Your task to perform on an android device: Show me productivity apps on the Play Store Image 0: 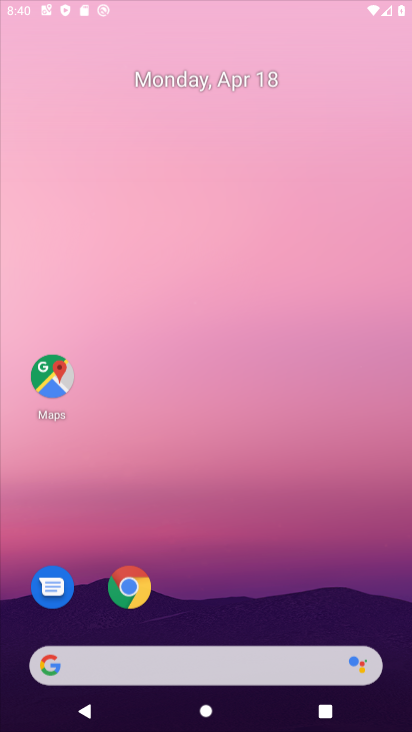
Step 0: drag from (301, 290) to (286, 117)
Your task to perform on an android device: Show me productivity apps on the Play Store Image 1: 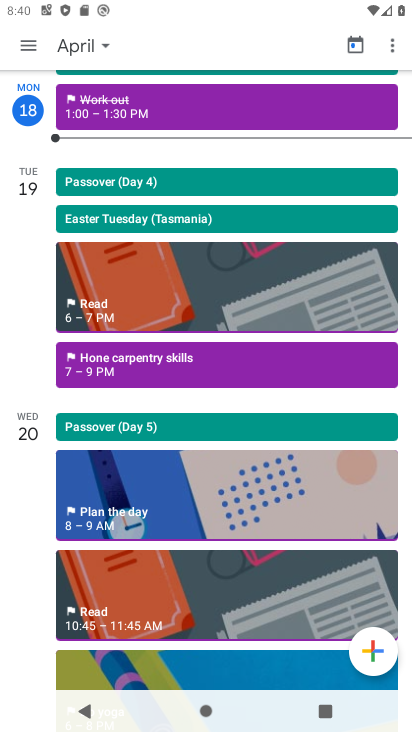
Step 1: press home button
Your task to perform on an android device: Show me productivity apps on the Play Store Image 2: 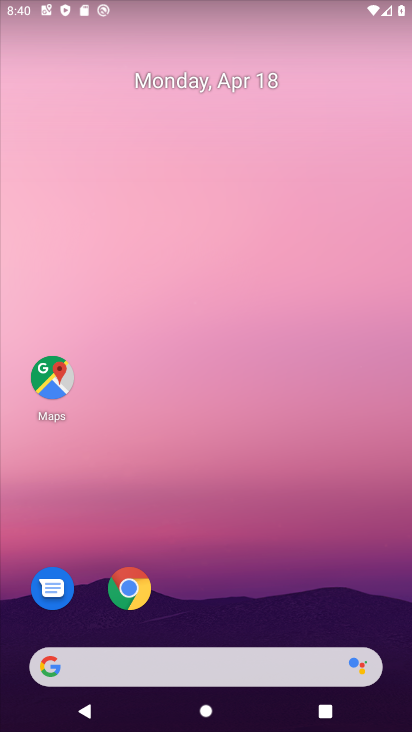
Step 2: drag from (260, 397) to (263, 133)
Your task to perform on an android device: Show me productivity apps on the Play Store Image 3: 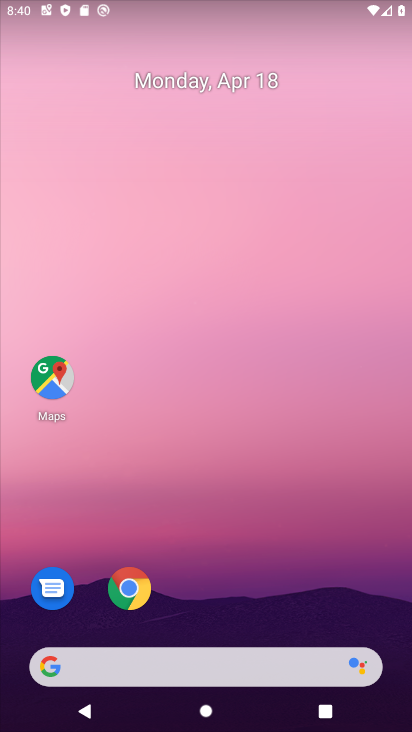
Step 3: drag from (202, 513) to (222, 87)
Your task to perform on an android device: Show me productivity apps on the Play Store Image 4: 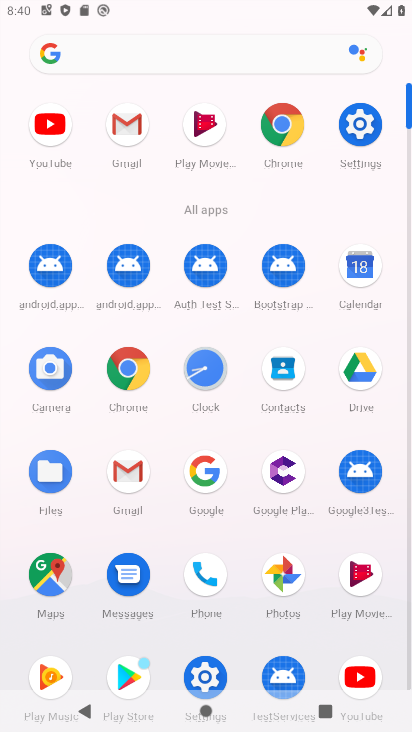
Step 4: click (123, 655)
Your task to perform on an android device: Show me productivity apps on the Play Store Image 5: 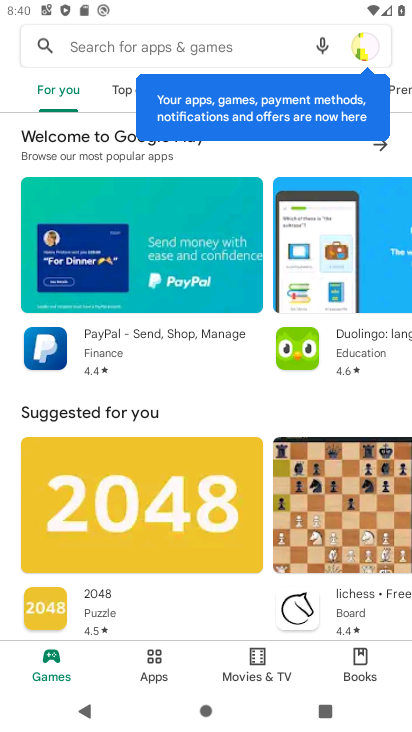
Step 5: click (372, 31)
Your task to perform on an android device: Show me productivity apps on the Play Store Image 6: 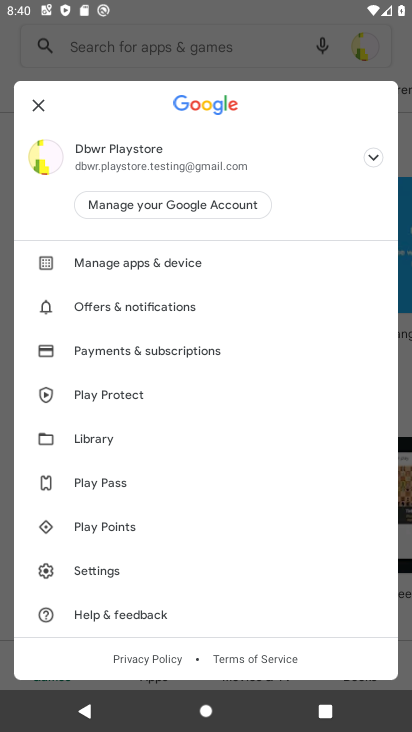
Step 6: click (181, 274)
Your task to perform on an android device: Show me productivity apps on the Play Store Image 7: 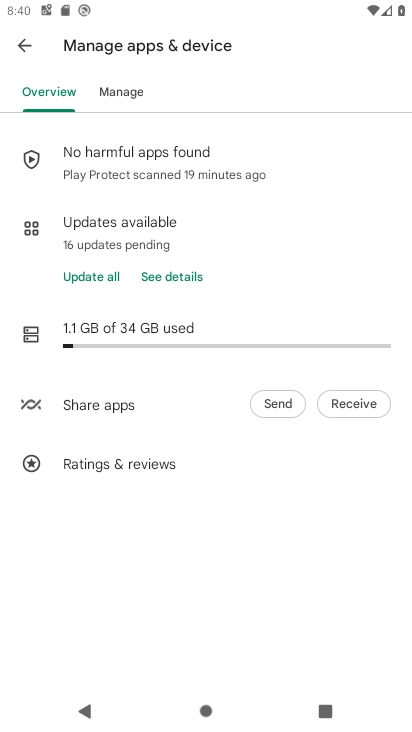
Step 7: click (119, 94)
Your task to perform on an android device: Show me productivity apps on the Play Store Image 8: 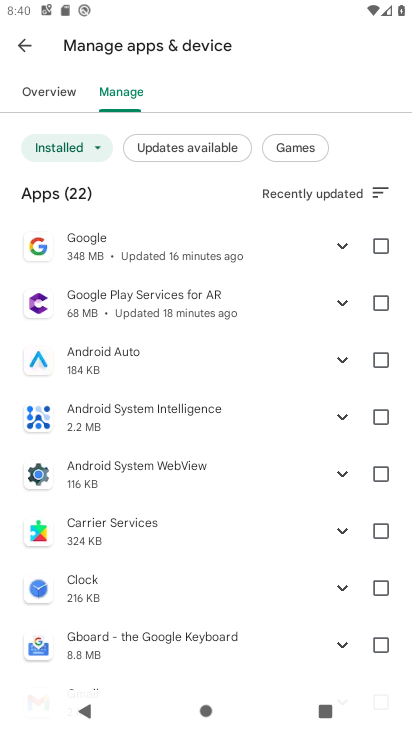
Step 8: click (60, 85)
Your task to perform on an android device: Show me productivity apps on the Play Store Image 9: 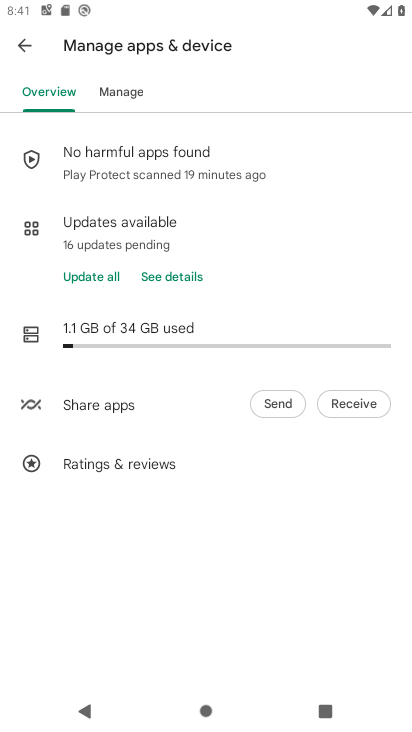
Step 9: task complete